Your task to perform on an android device: turn on javascript in the chrome app Image 0: 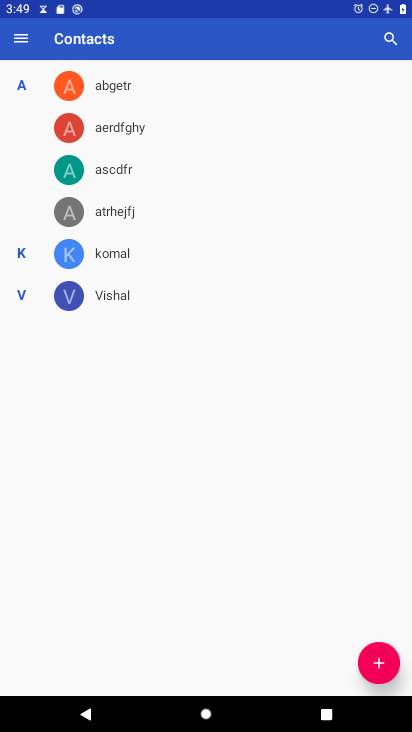
Step 0: press home button
Your task to perform on an android device: turn on javascript in the chrome app Image 1: 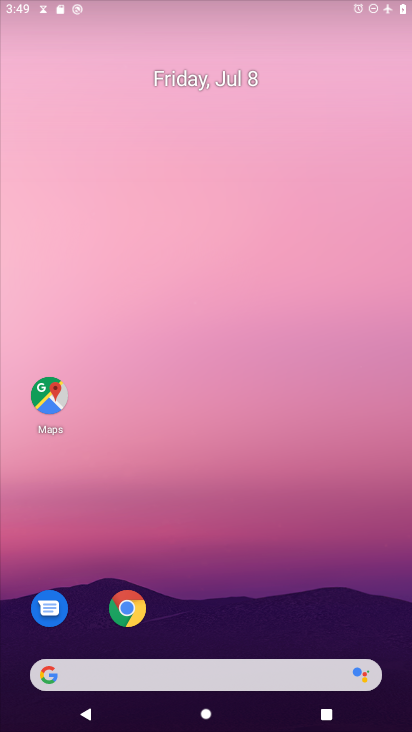
Step 1: drag from (237, 585) to (237, 5)
Your task to perform on an android device: turn on javascript in the chrome app Image 2: 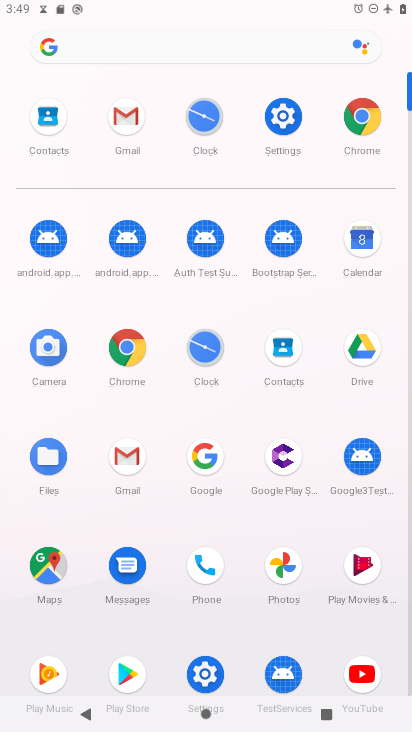
Step 2: click (132, 366)
Your task to perform on an android device: turn on javascript in the chrome app Image 3: 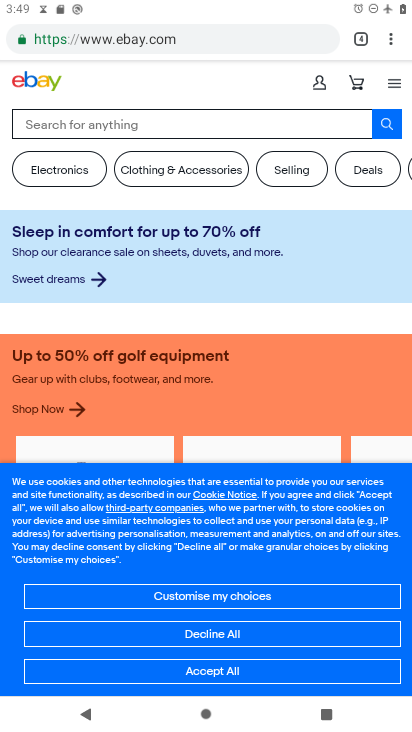
Step 3: drag from (388, 35) to (275, 436)
Your task to perform on an android device: turn on javascript in the chrome app Image 4: 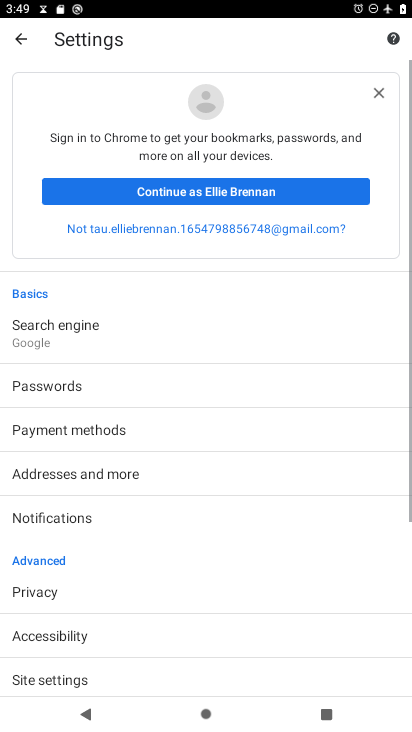
Step 4: drag from (188, 513) to (255, 219)
Your task to perform on an android device: turn on javascript in the chrome app Image 5: 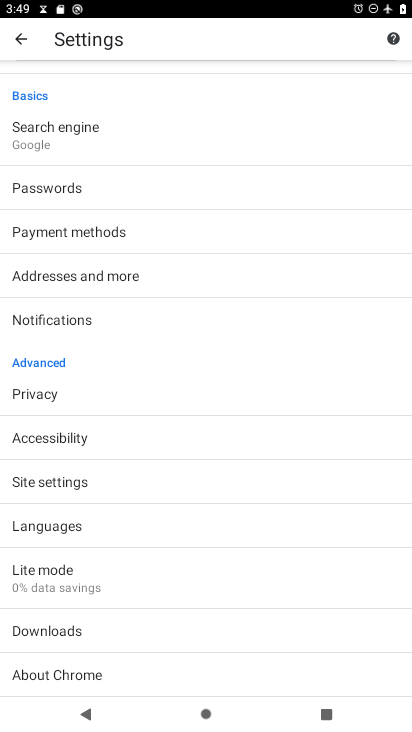
Step 5: click (39, 482)
Your task to perform on an android device: turn on javascript in the chrome app Image 6: 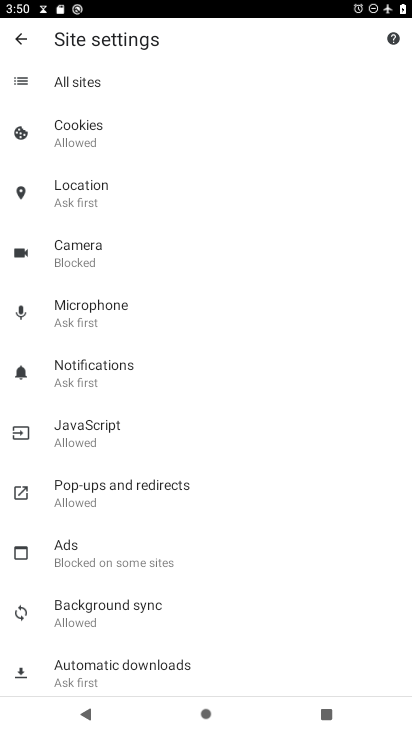
Step 6: click (77, 423)
Your task to perform on an android device: turn on javascript in the chrome app Image 7: 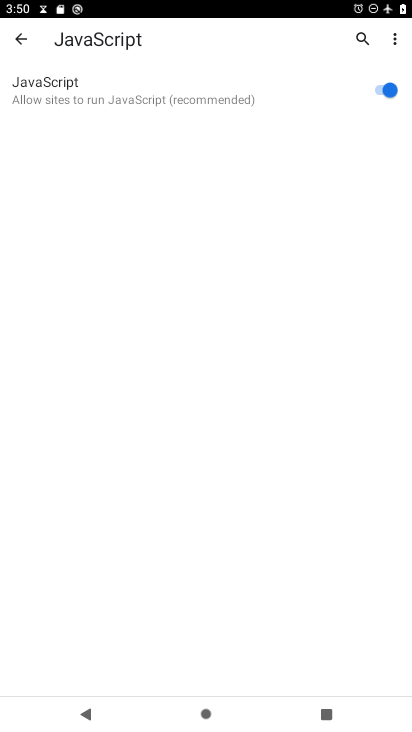
Step 7: task complete